Your task to perform on an android device: delete a single message in the gmail app Image 0: 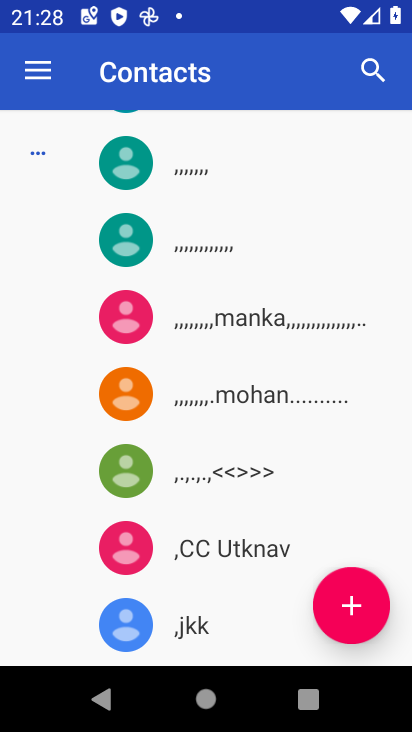
Step 0: press home button
Your task to perform on an android device: delete a single message in the gmail app Image 1: 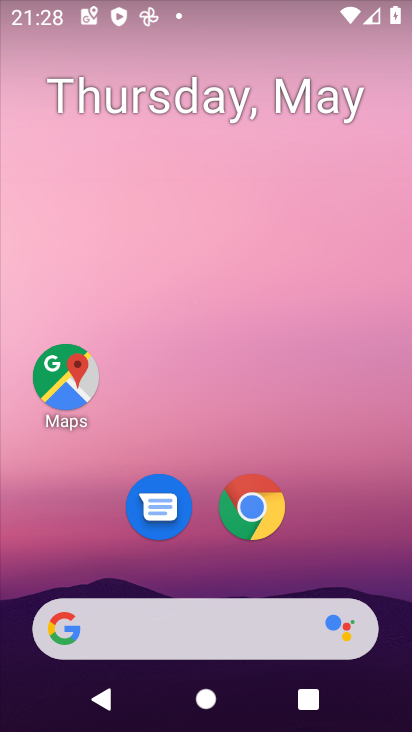
Step 1: drag from (272, 664) to (260, 188)
Your task to perform on an android device: delete a single message in the gmail app Image 2: 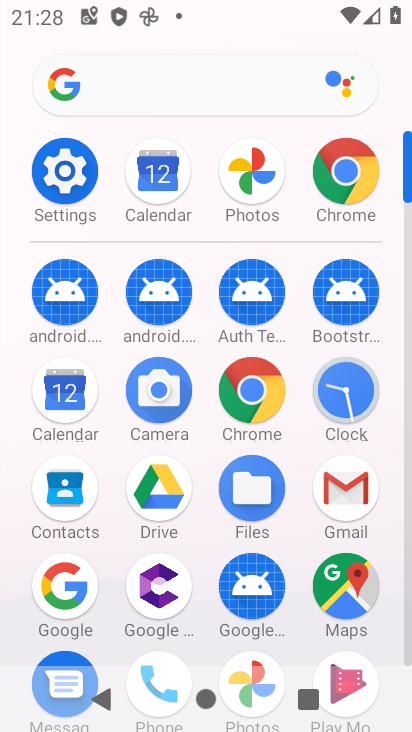
Step 2: click (353, 487)
Your task to perform on an android device: delete a single message in the gmail app Image 3: 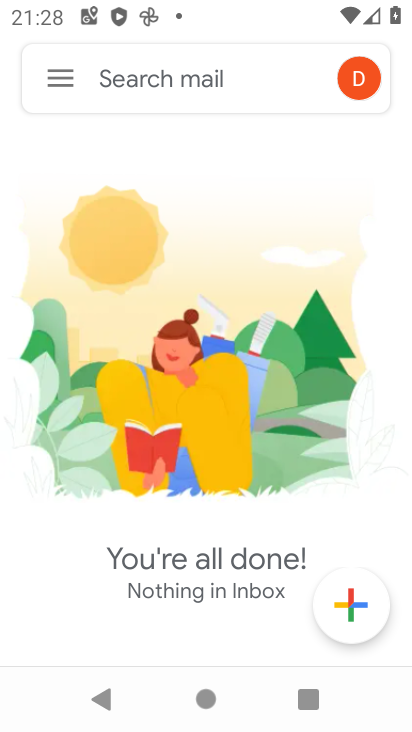
Step 3: click (35, 76)
Your task to perform on an android device: delete a single message in the gmail app Image 4: 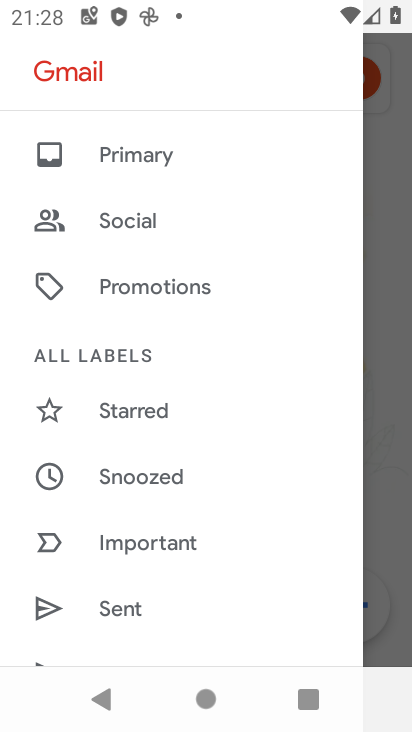
Step 4: drag from (207, 474) to (219, 385)
Your task to perform on an android device: delete a single message in the gmail app Image 5: 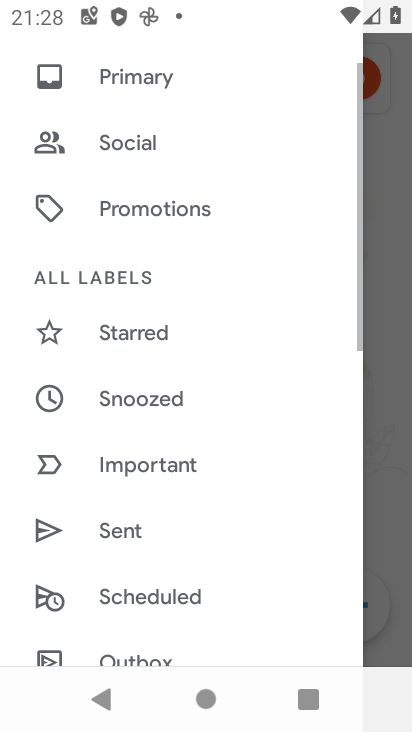
Step 5: drag from (176, 590) to (201, 437)
Your task to perform on an android device: delete a single message in the gmail app Image 6: 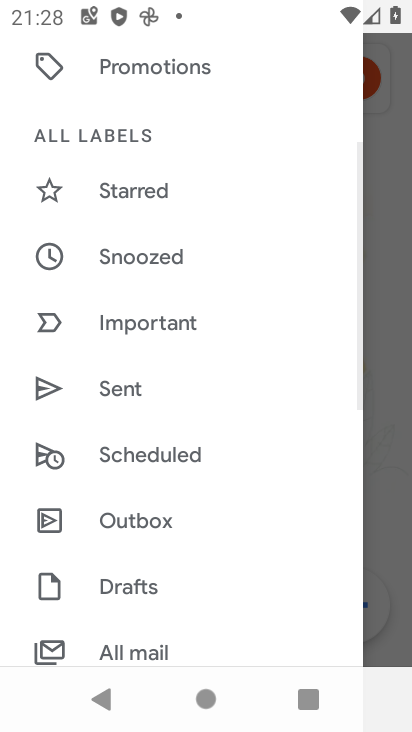
Step 6: drag from (166, 591) to (164, 556)
Your task to perform on an android device: delete a single message in the gmail app Image 7: 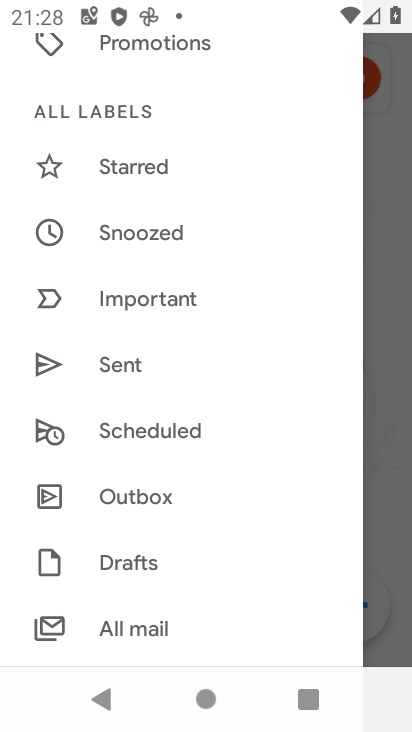
Step 7: click (151, 615)
Your task to perform on an android device: delete a single message in the gmail app Image 8: 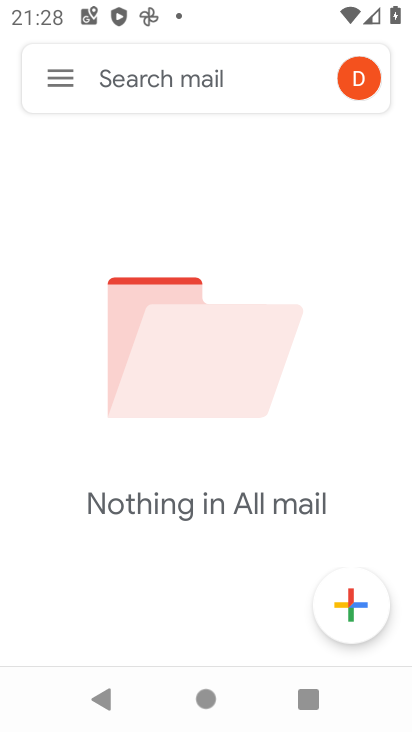
Step 8: task complete